Your task to perform on an android device: Show me recent news Image 0: 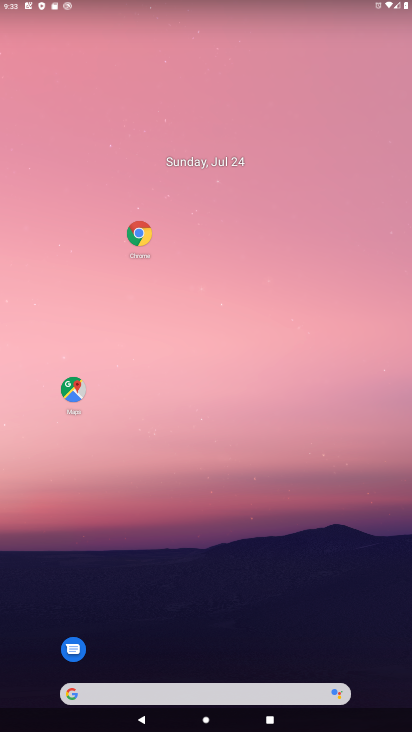
Step 0: drag from (192, 652) to (192, 138)
Your task to perform on an android device: Show me recent news Image 1: 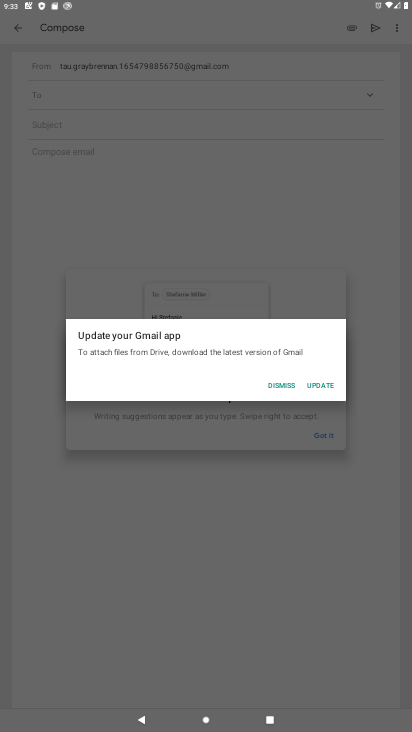
Step 1: click (281, 383)
Your task to perform on an android device: Show me recent news Image 2: 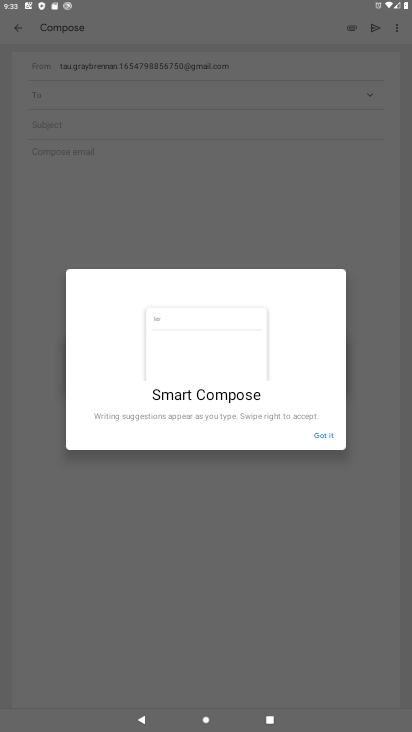
Step 2: click (317, 432)
Your task to perform on an android device: Show me recent news Image 3: 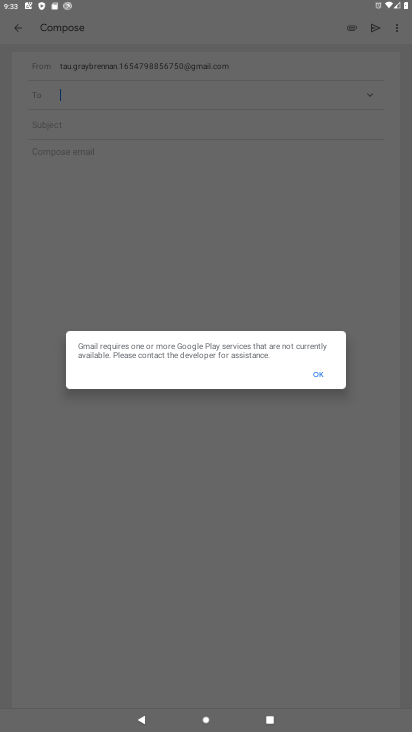
Step 3: click (311, 365)
Your task to perform on an android device: Show me recent news Image 4: 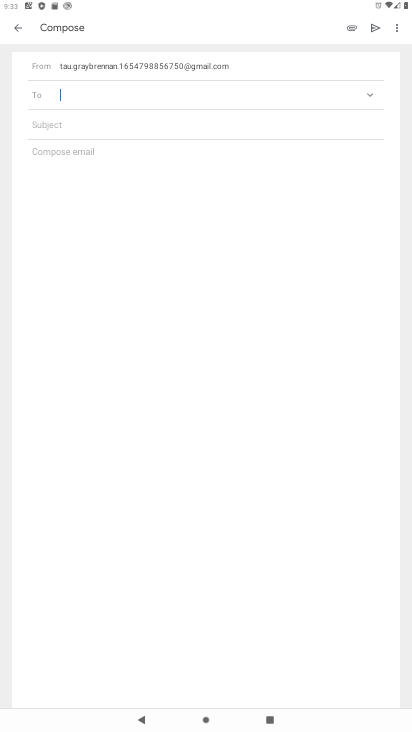
Step 4: press home button
Your task to perform on an android device: Show me recent news Image 5: 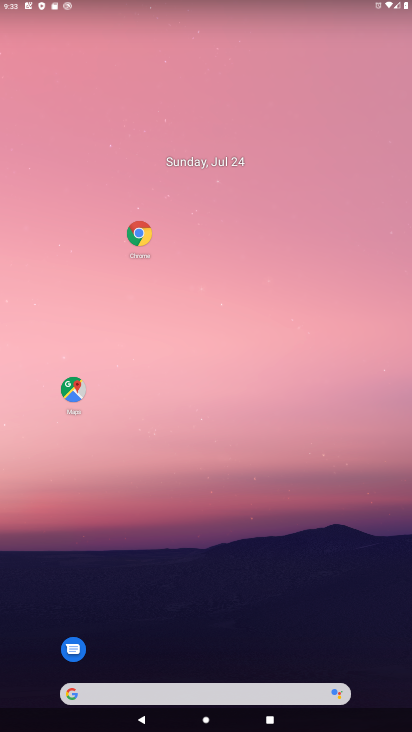
Step 5: click (180, 694)
Your task to perform on an android device: Show me recent news Image 6: 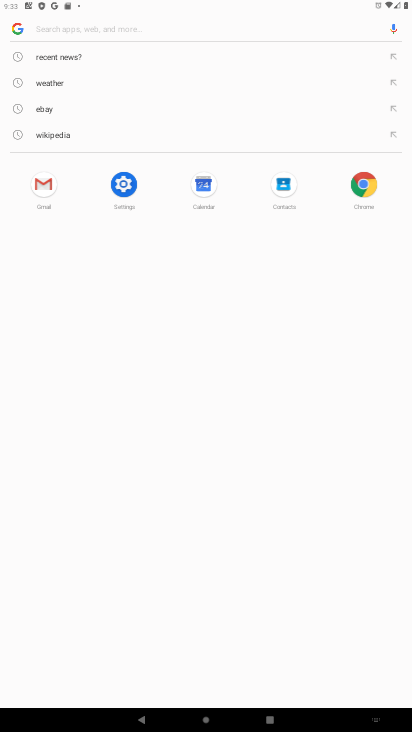
Step 6: click (45, 56)
Your task to perform on an android device: Show me recent news Image 7: 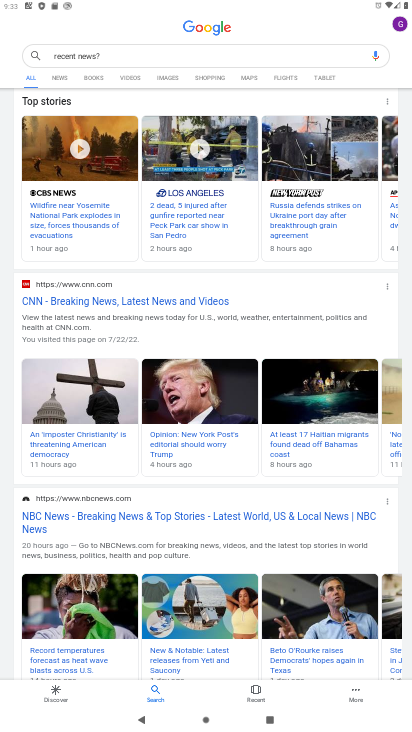
Step 7: task complete